Your task to perform on an android device: turn off data saver in the chrome app Image 0: 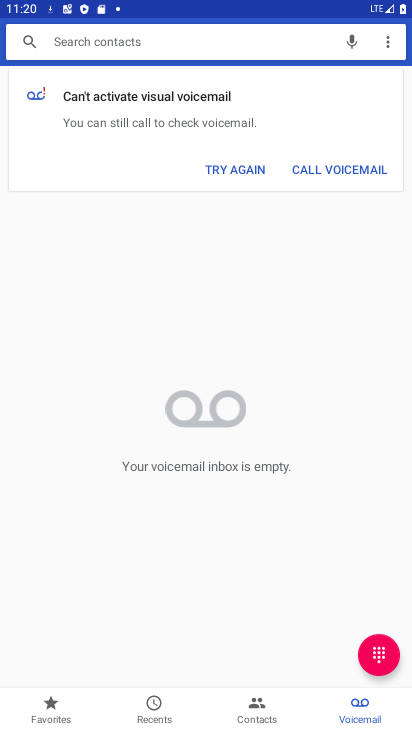
Step 0: press home button
Your task to perform on an android device: turn off data saver in the chrome app Image 1: 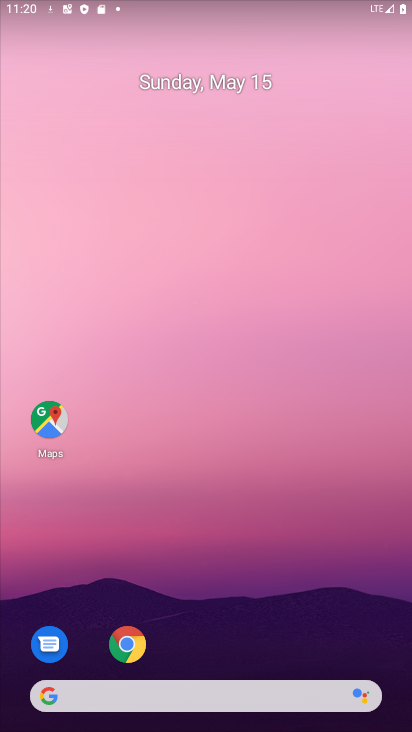
Step 1: drag from (170, 721) to (155, 308)
Your task to perform on an android device: turn off data saver in the chrome app Image 2: 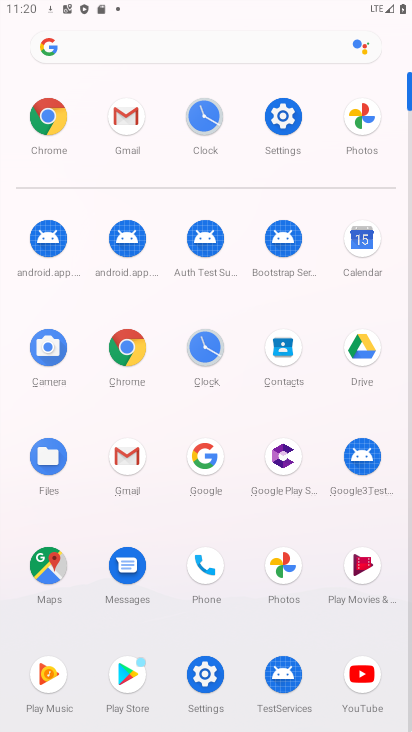
Step 2: click (133, 357)
Your task to perform on an android device: turn off data saver in the chrome app Image 3: 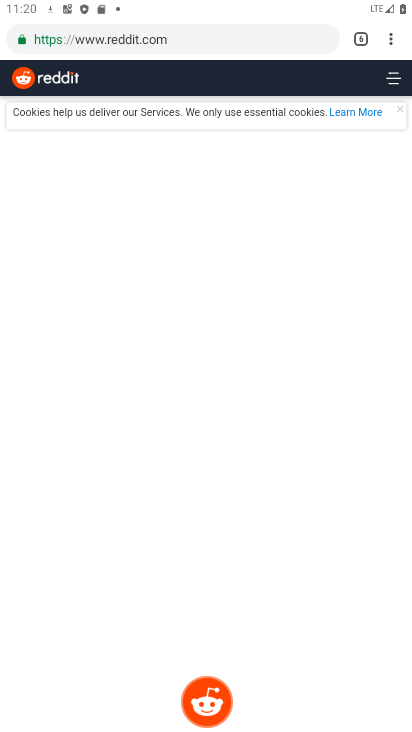
Step 3: click (393, 35)
Your task to perform on an android device: turn off data saver in the chrome app Image 4: 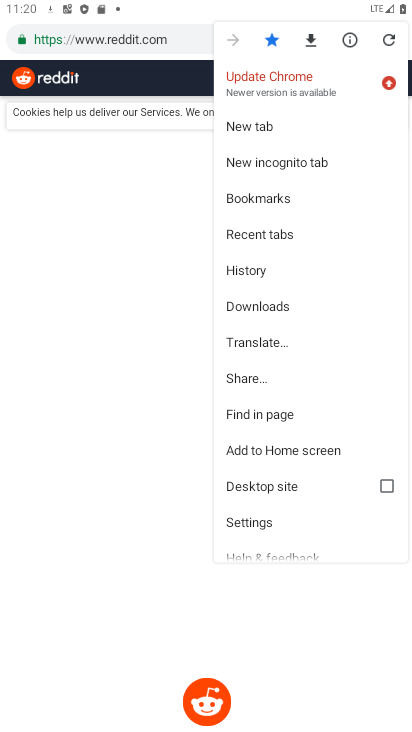
Step 4: click (265, 523)
Your task to perform on an android device: turn off data saver in the chrome app Image 5: 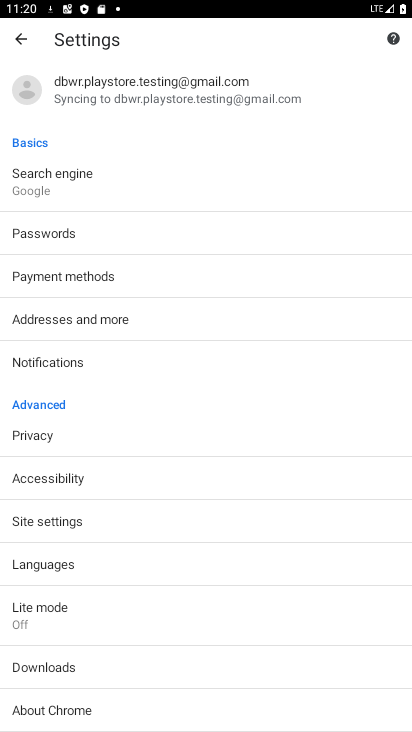
Step 5: click (59, 619)
Your task to perform on an android device: turn off data saver in the chrome app Image 6: 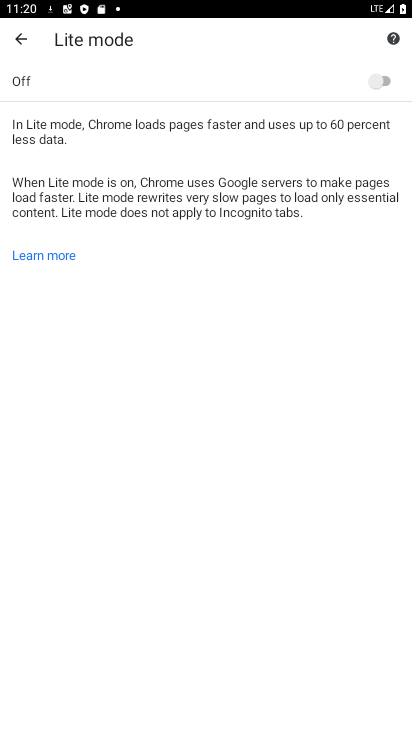
Step 6: click (382, 79)
Your task to perform on an android device: turn off data saver in the chrome app Image 7: 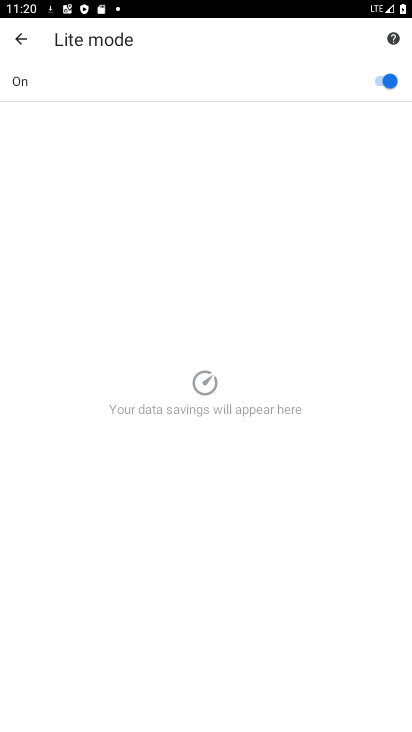
Step 7: click (379, 80)
Your task to perform on an android device: turn off data saver in the chrome app Image 8: 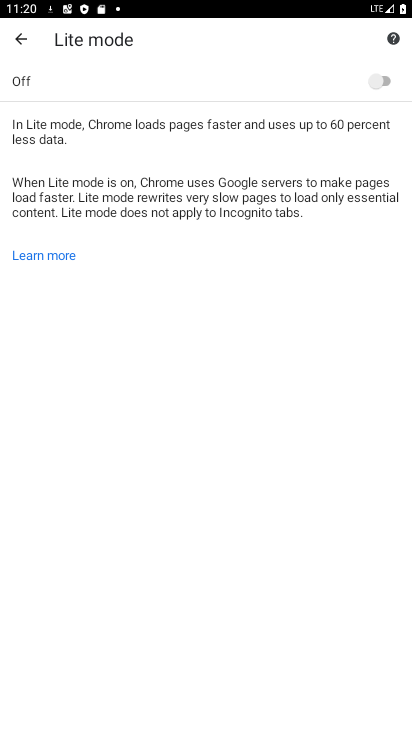
Step 8: task complete